Your task to perform on an android device: add a contact in the contacts app Image 0: 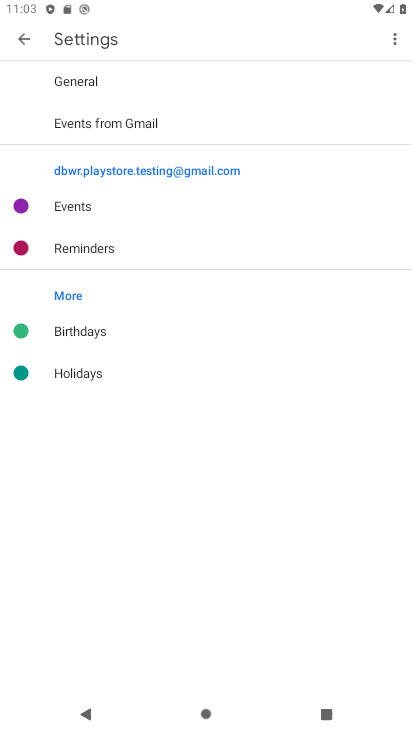
Step 0: press home button
Your task to perform on an android device: add a contact in the contacts app Image 1: 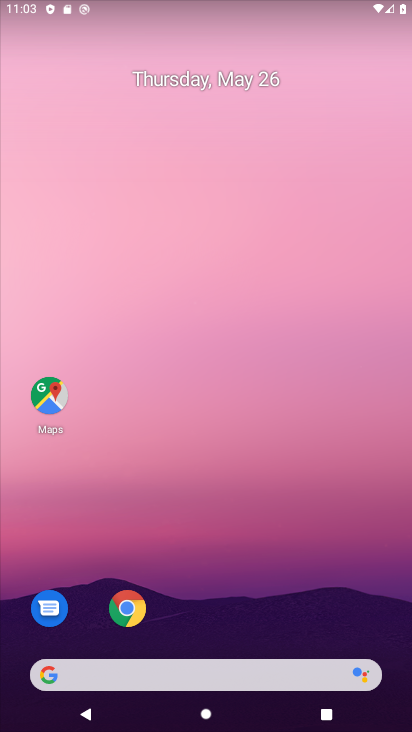
Step 1: drag from (269, 596) to (270, 36)
Your task to perform on an android device: add a contact in the contacts app Image 2: 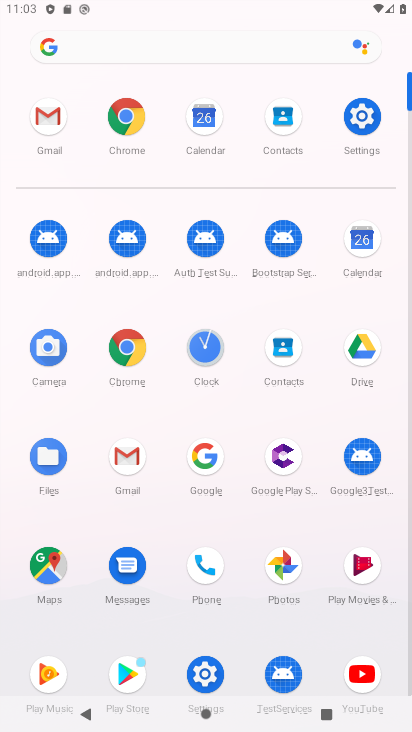
Step 2: click (279, 115)
Your task to perform on an android device: add a contact in the contacts app Image 3: 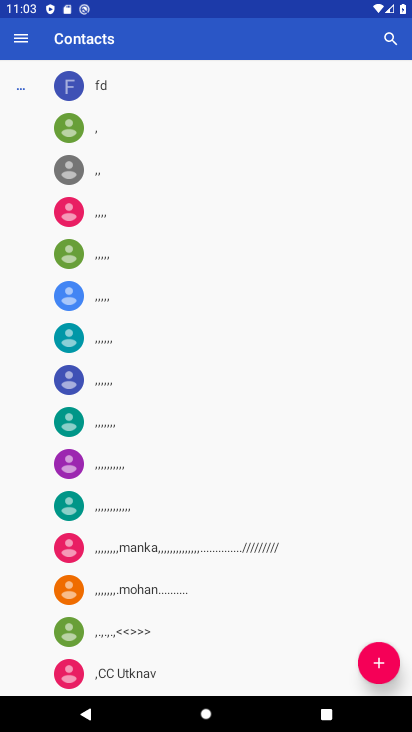
Step 3: click (377, 666)
Your task to perform on an android device: add a contact in the contacts app Image 4: 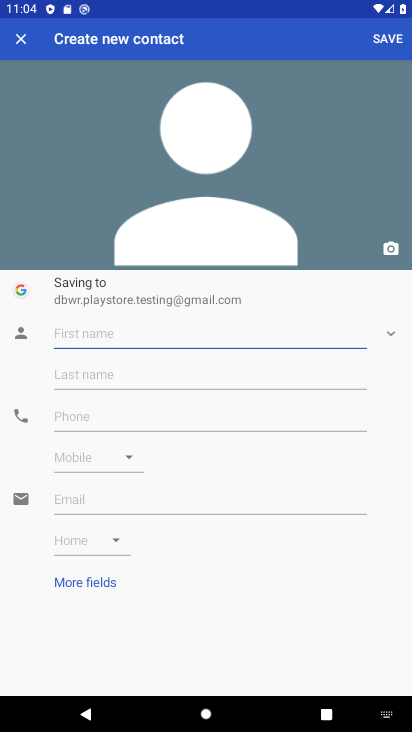
Step 4: click (188, 338)
Your task to perform on an android device: add a contact in the contacts app Image 5: 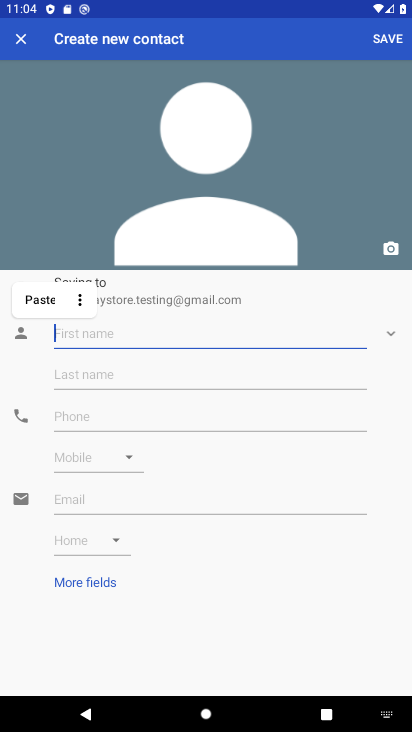
Step 5: type "zurabe"
Your task to perform on an android device: add a contact in the contacts app Image 6: 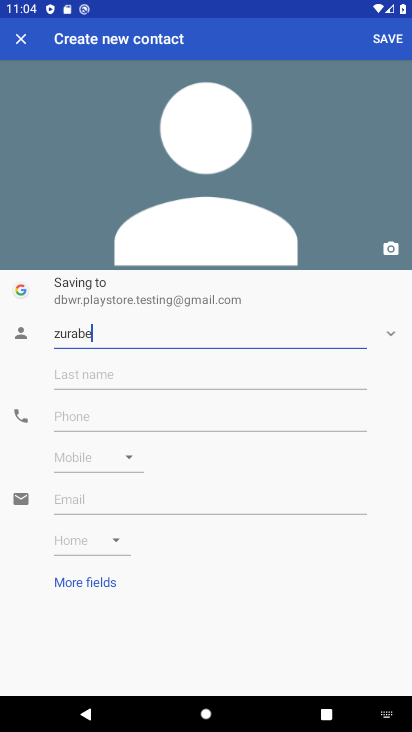
Step 6: click (391, 36)
Your task to perform on an android device: add a contact in the contacts app Image 7: 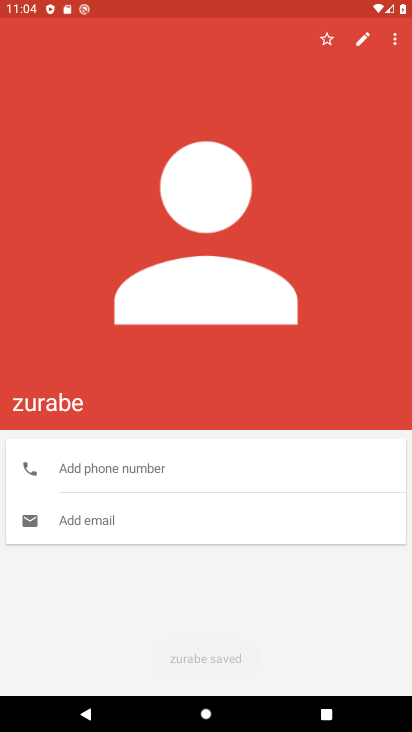
Step 7: task complete